Your task to perform on an android device: turn off notifications settings in the gmail app Image 0: 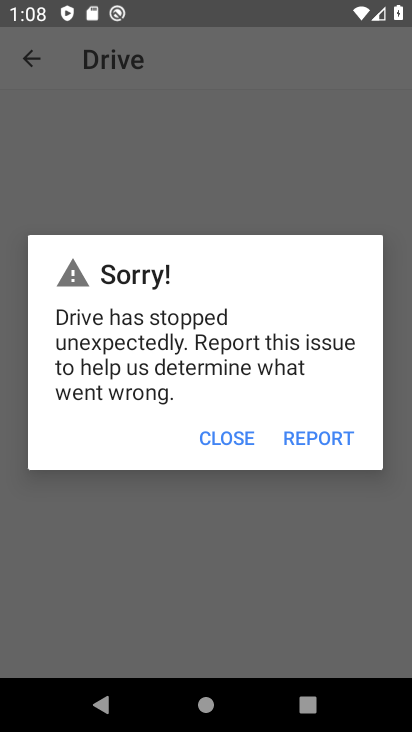
Step 0: press home button
Your task to perform on an android device: turn off notifications settings in the gmail app Image 1: 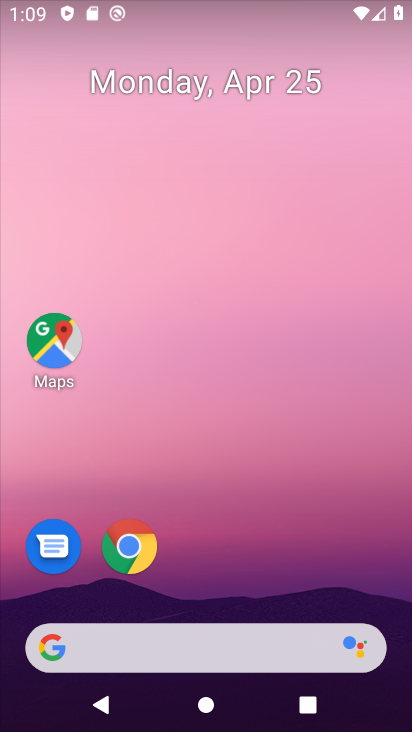
Step 1: drag from (179, 426) to (149, 21)
Your task to perform on an android device: turn off notifications settings in the gmail app Image 2: 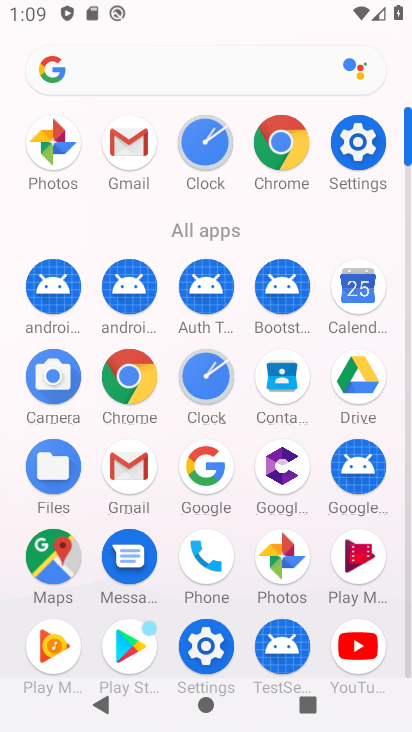
Step 2: click (136, 487)
Your task to perform on an android device: turn off notifications settings in the gmail app Image 3: 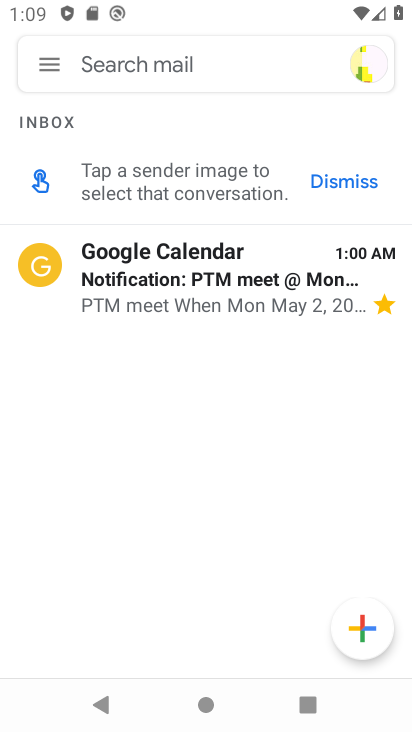
Step 3: click (46, 59)
Your task to perform on an android device: turn off notifications settings in the gmail app Image 4: 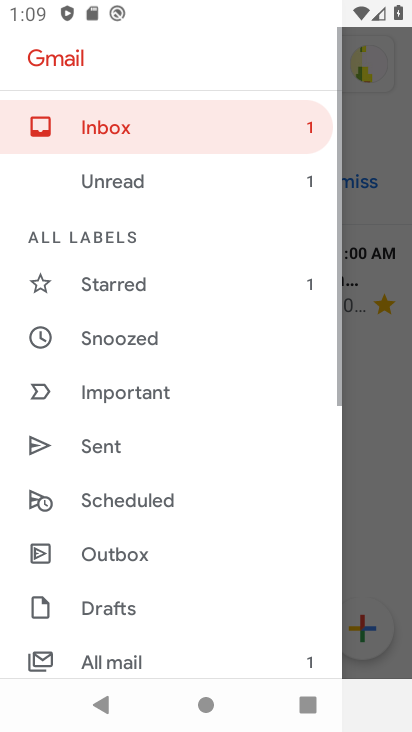
Step 4: drag from (136, 607) to (132, 169)
Your task to perform on an android device: turn off notifications settings in the gmail app Image 5: 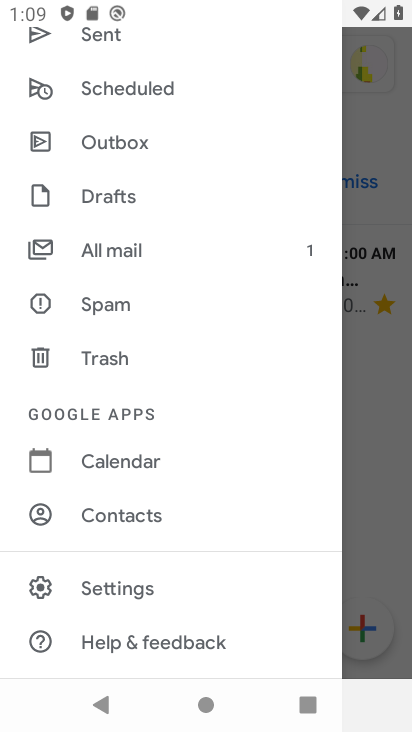
Step 5: click (122, 586)
Your task to perform on an android device: turn off notifications settings in the gmail app Image 6: 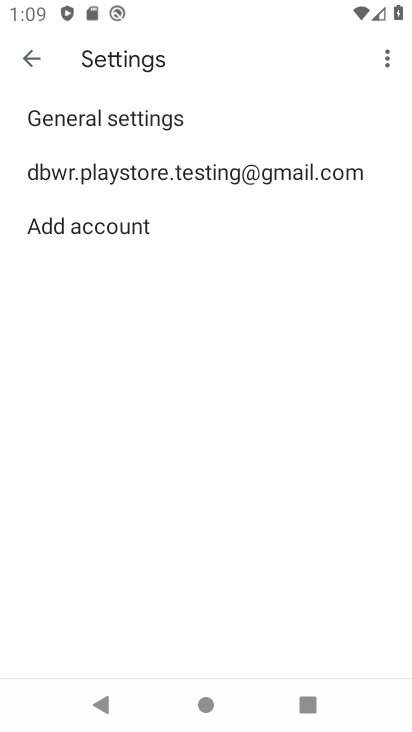
Step 6: drag from (113, 161) to (111, 467)
Your task to perform on an android device: turn off notifications settings in the gmail app Image 7: 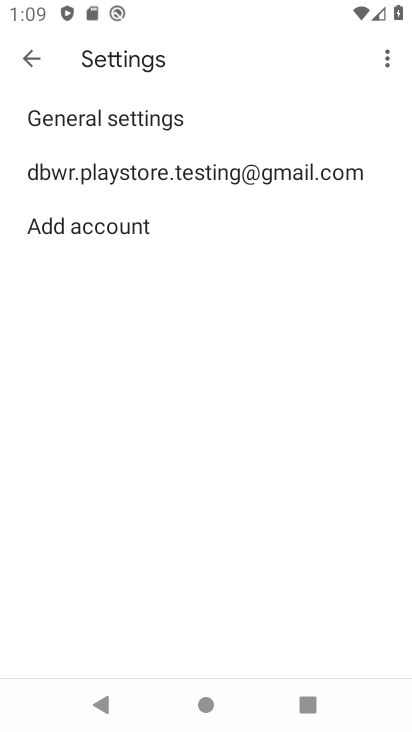
Step 7: click (98, 119)
Your task to perform on an android device: turn off notifications settings in the gmail app Image 8: 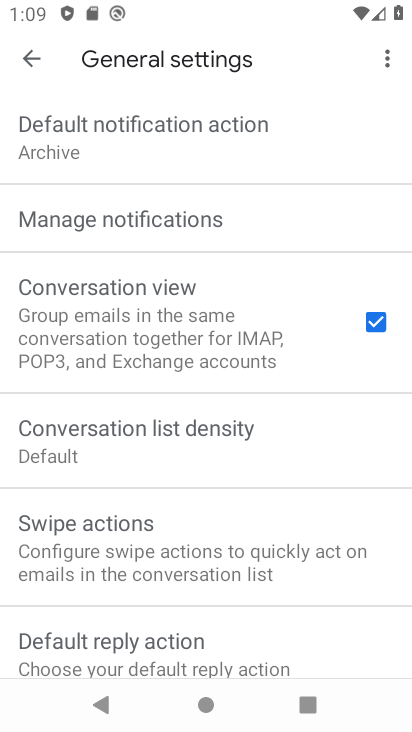
Step 8: click (145, 223)
Your task to perform on an android device: turn off notifications settings in the gmail app Image 9: 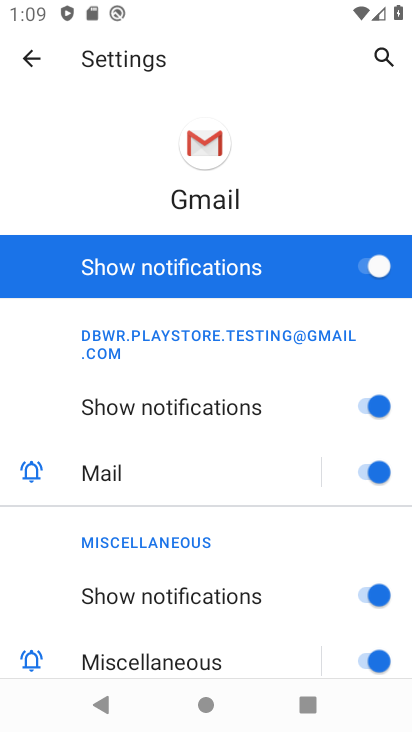
Step 9: click (372, 259)
Your task to perform on an android device: turn off notifications settings in the gmail app Image 10: 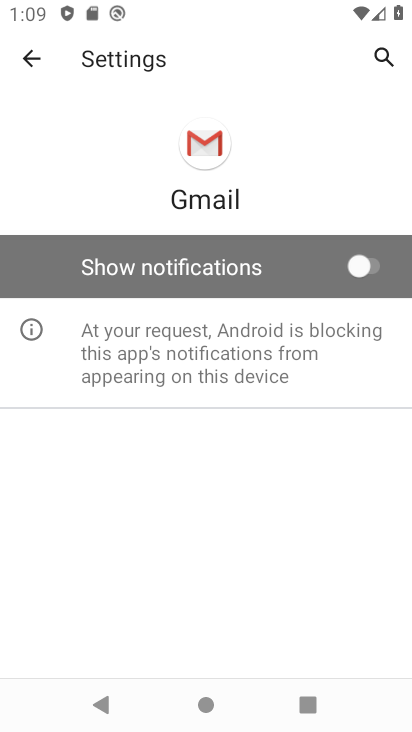
Step 10: task complete